Your task to perform on an android device: Check the news Image 0: 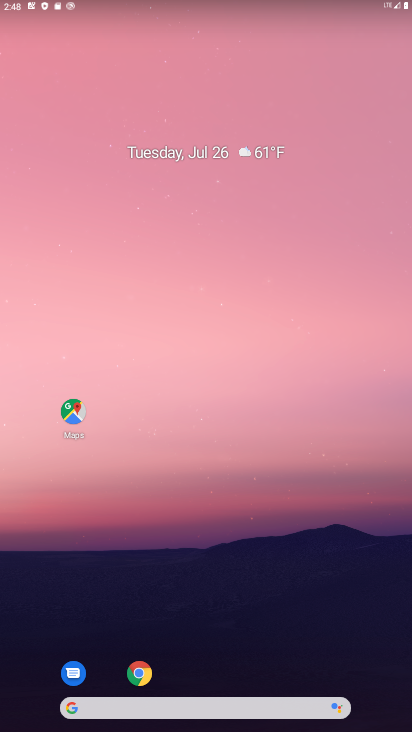
Step 0: drag from (184, 702) to (139, 17)
Your task to perform on an android device: Check the news Image 1: 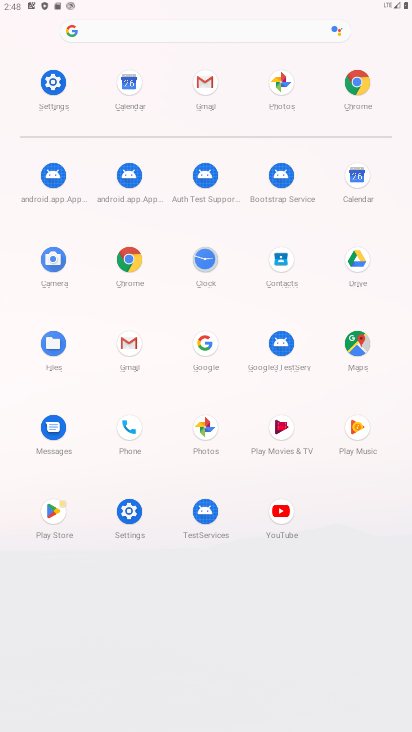
Step 1: click (159, 31)
Your task to perform on an android device: Check the news Image 2: 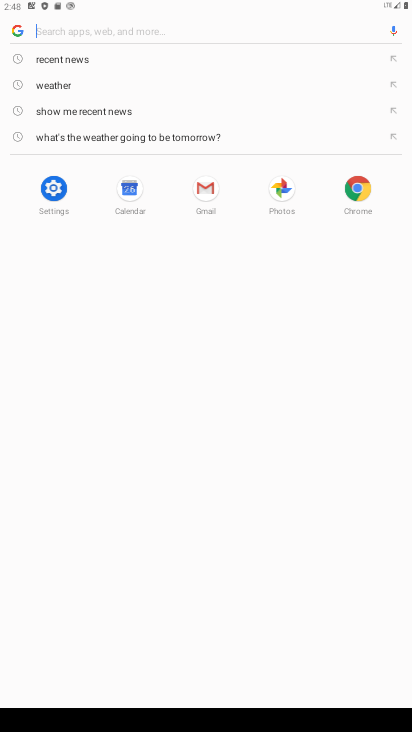
Step 2: type "news"
Your task to perform on an android device: Check the news Image 3: 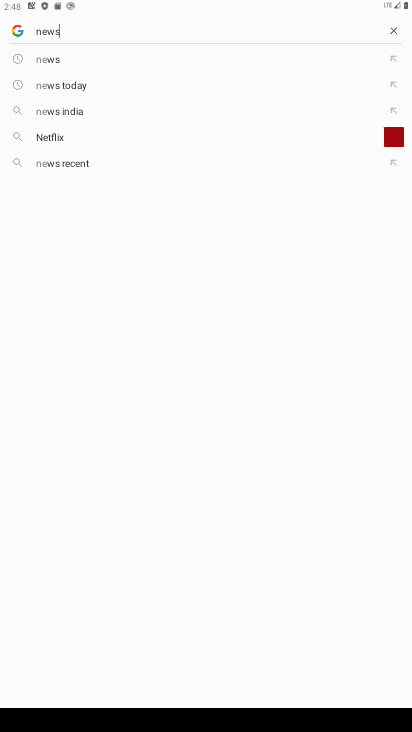
Step 3: type ""
Your task to perform on an android device: Check the news Image 4: 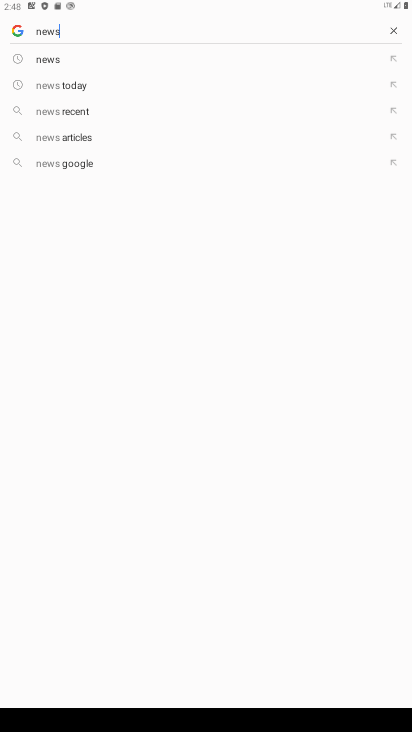
Step 4: click (73, 63)
Your task to perform on an android device: Check the news Image 5: 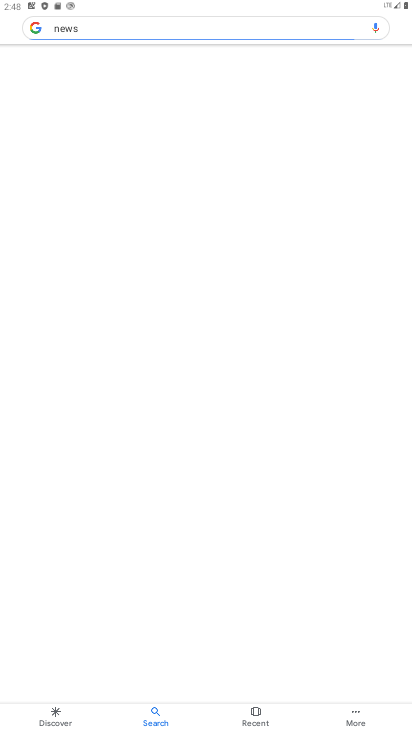
Step 5: task complete